Your task to perform on an android device: turn on notifications settings in the gmail app Image 0: 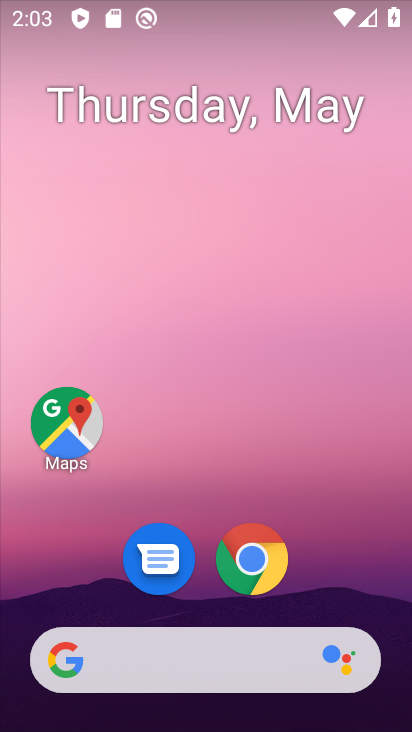
Step 0: drag from (195, 598) to (218, 199)
Your task to perform on an android device: turn on notifications settings in the gmail app Image 1: 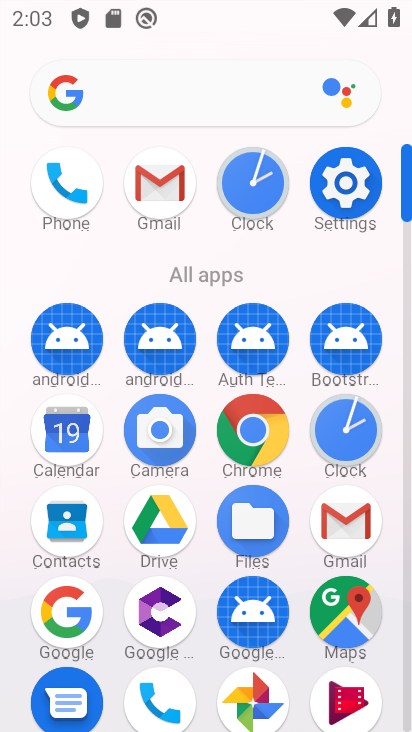
Step 1: click (148, 185)
Your task to perform on an android device: turn on notifications settings in the gmail app Image 2: 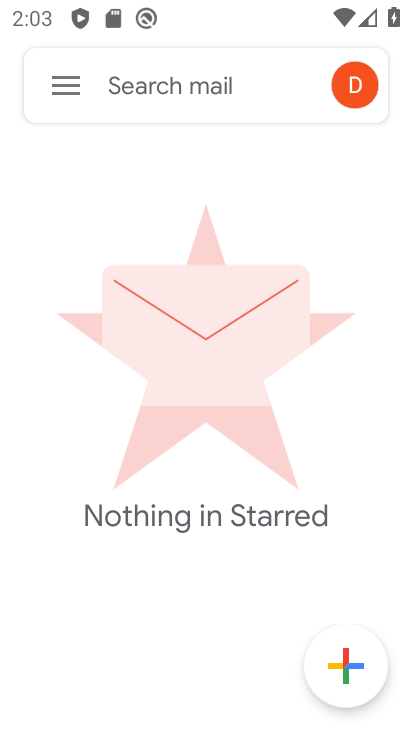
Step 2: click (72, 86)
Your task to perform on an android device: turn on notifications settings in the gmail app Image 3: 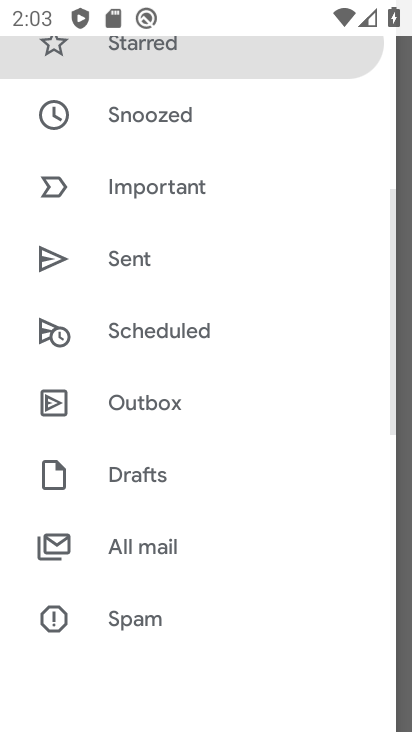
Step 3: drag from (166, 588) to (187, 230)
Your task to perform on an android device: turn on notifications settings in the gmail app Image 4: 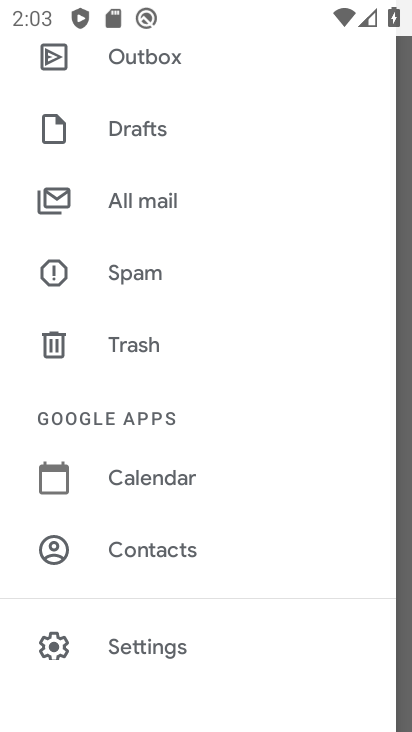
Step 4: click (170, 650)
Your task to perform on an android device: turn on notifications settings in the gmail app Image 5: 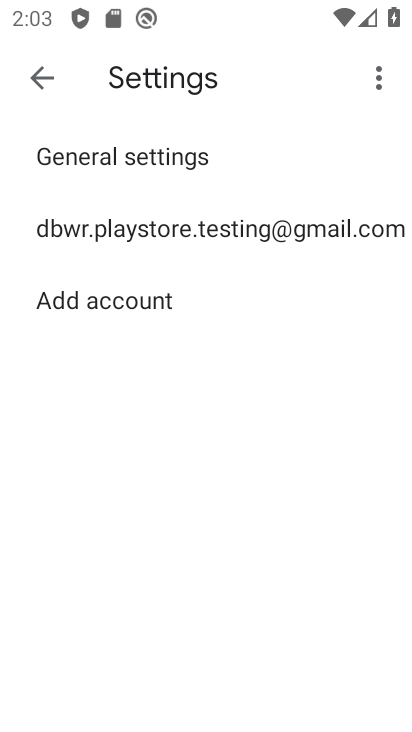
Step 5: click (202, 232)
Your task to perform on an android device: turn on notifications settings in the gmail app Image 6: 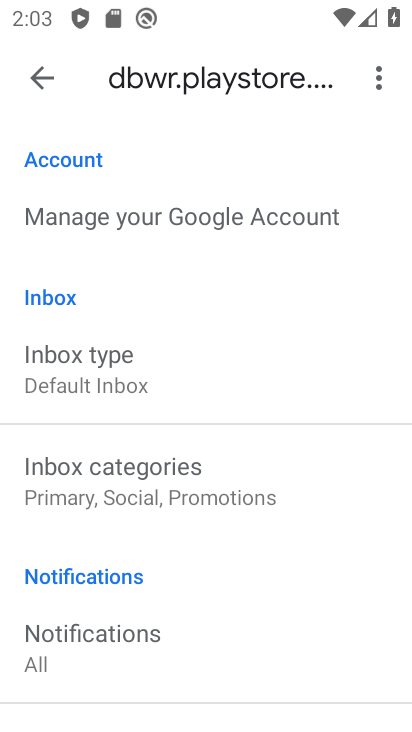
Step 6: drag from (219, 620) to (235, 407)
Your task to perform on an android device: turn on notifications settings in the gmail app Image 7: 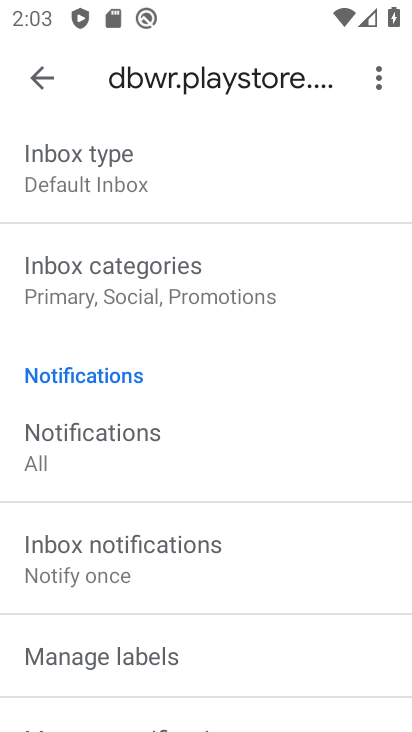
Step 7: drag from (194, 644) to (211, 432)
Your task to perform on an android device: turn on notifications settings in the gmail app Image 8: 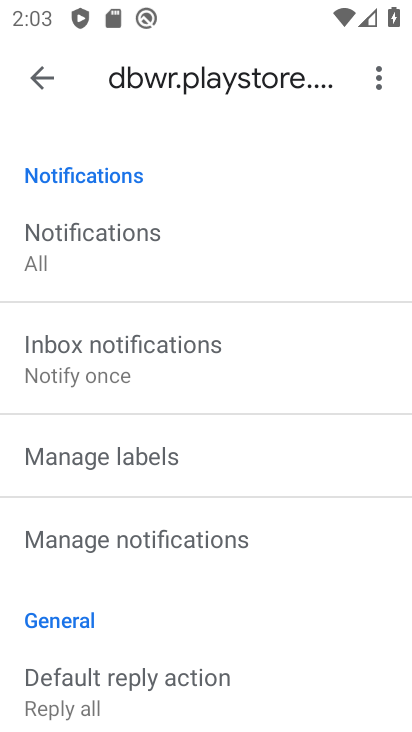
Step 8: click (167, 529)
Your task to perform on an android device: turn on notifications settings in the gmail app Image 9: 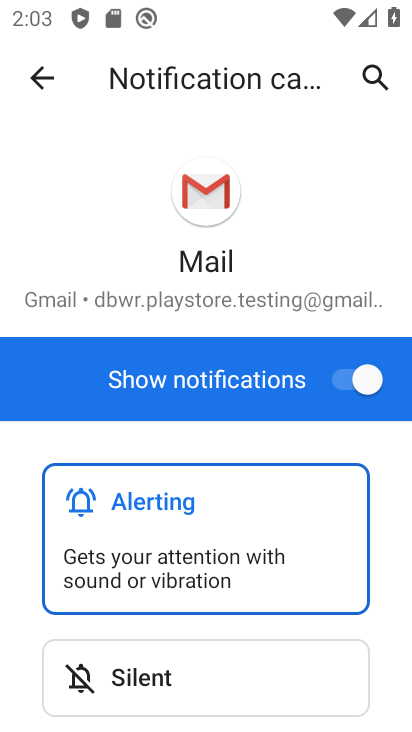
Step 9: task complete